Your task to perform on an android device: open a new tab in the chrome app Image 0: 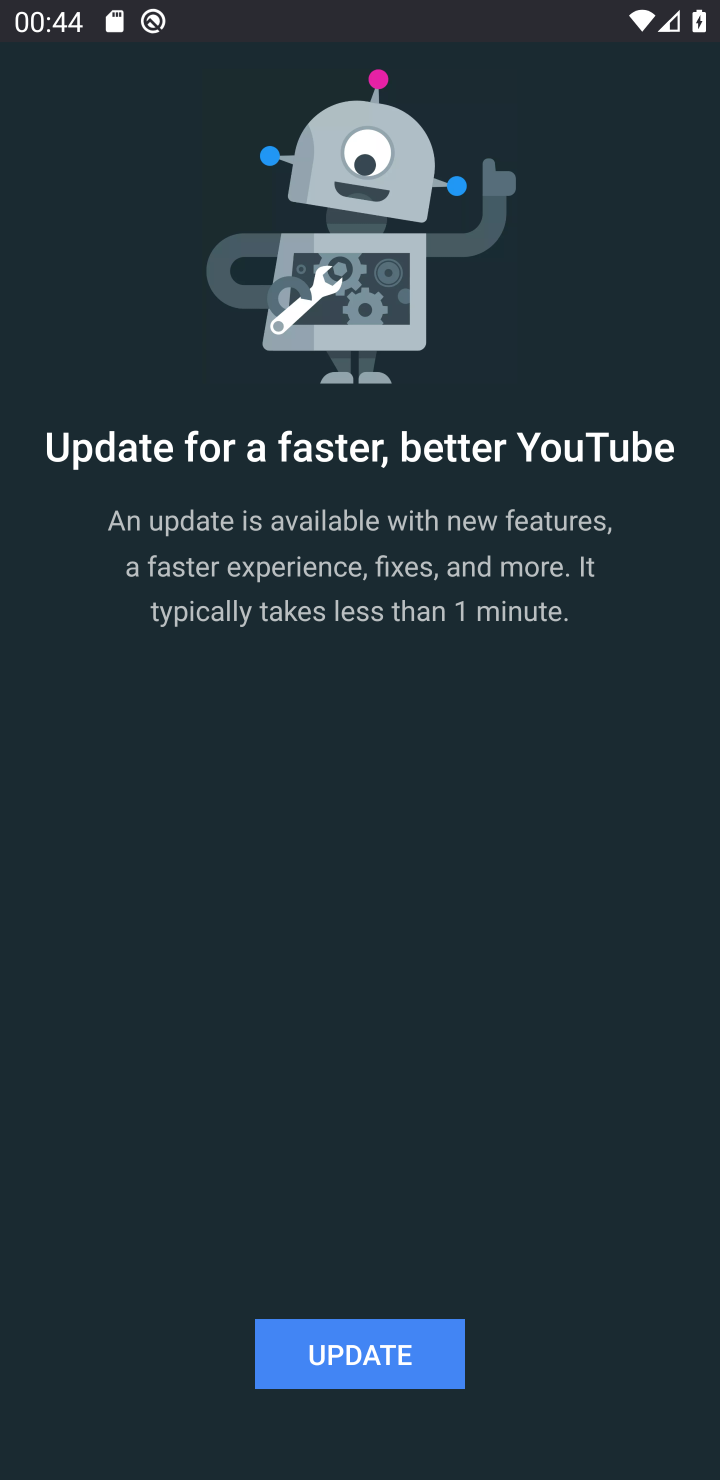
Step 0: press home button
Your task to perform on an android device: open a new tab in the chrome app Image 1: 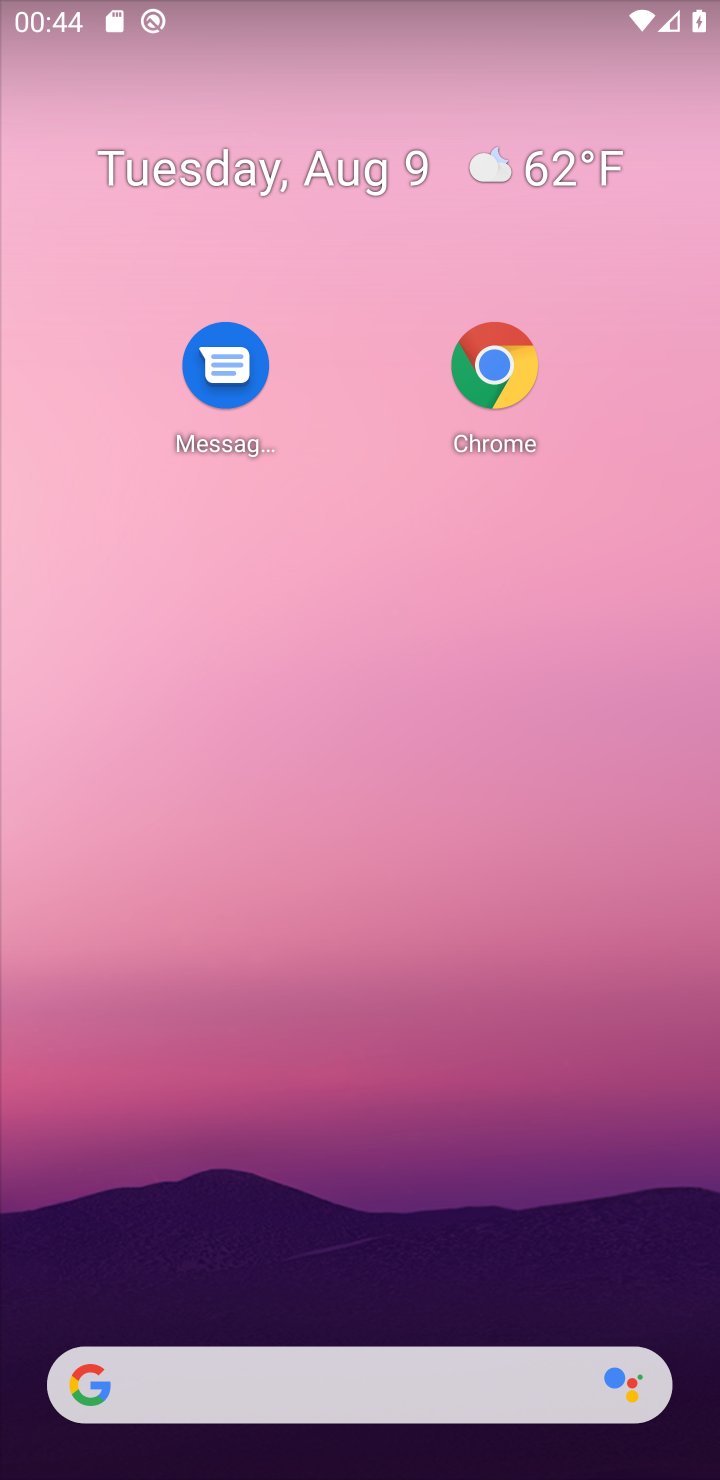
Step 1: drag from (225, 1119) to (290, 386)
Your task to perform on an android device: open a new tab in the chrome app Image 2: 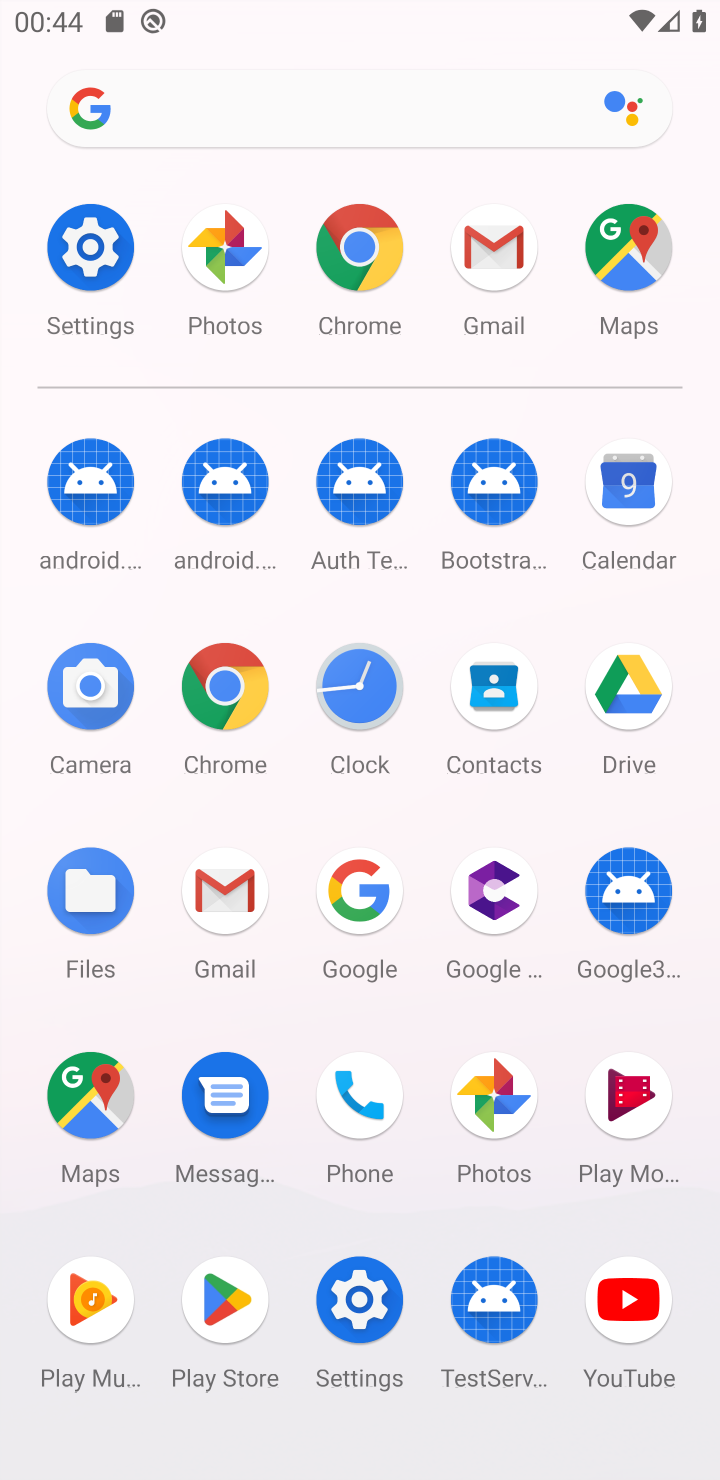
Step 2: click (232, 686)
Your task to perform on an android device: open a new tab in the chrome app Image 3: 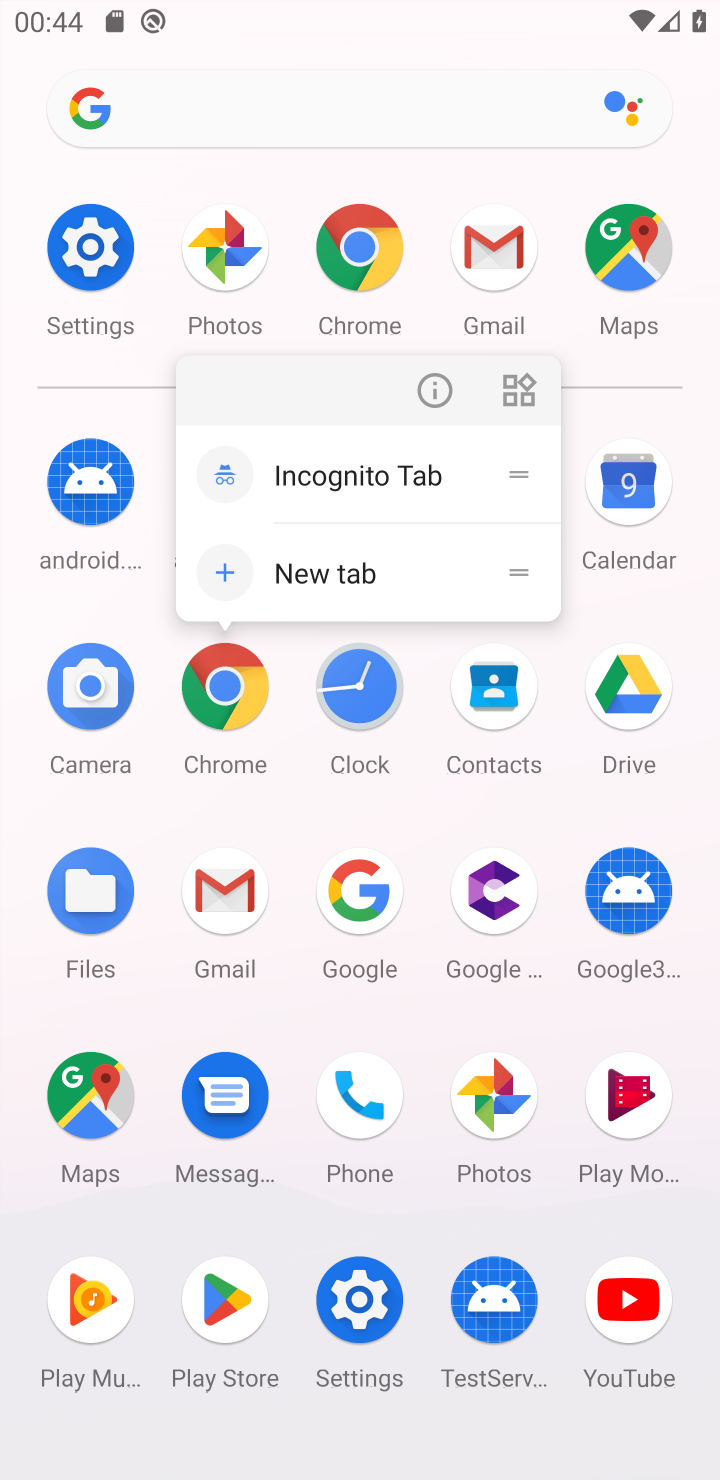
Step 3: click (234, 683)
Your task to perform on an android device: open a new tab in the chrome app Image 4: 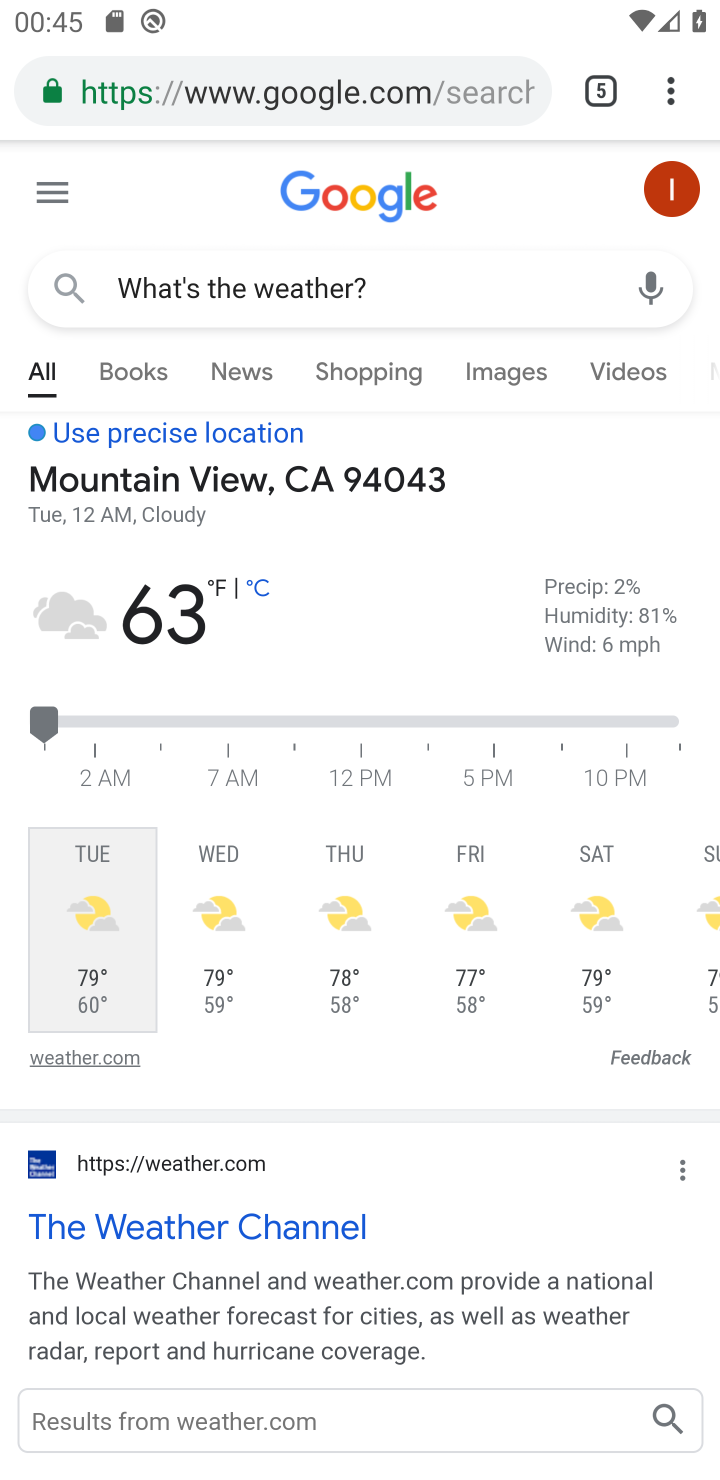
Step 4: click (673, 103)
Your task to perform on an android device: open a new tab in the chrome app Image 5: 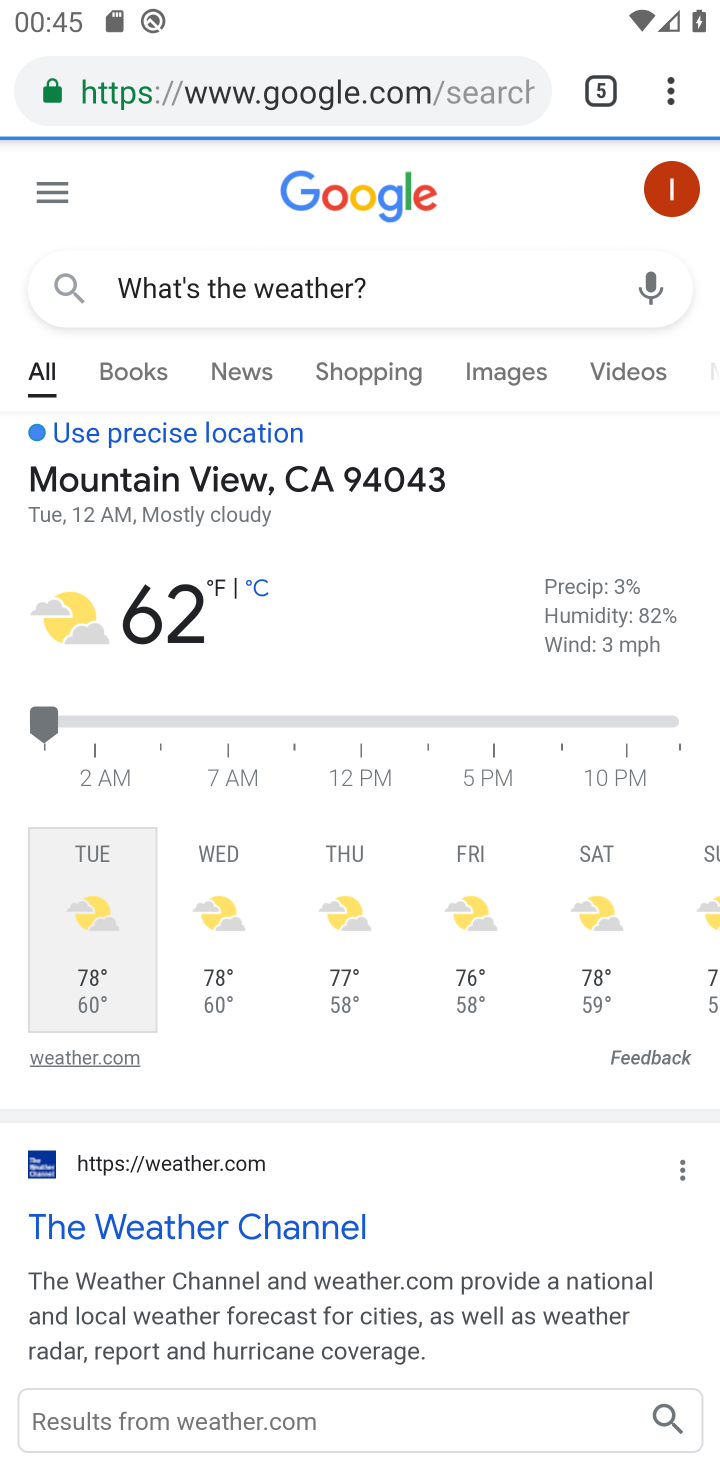
Step 5: click (673, 103)
Your task to perform on an android device: open a new tab in the chrome app Image 6: 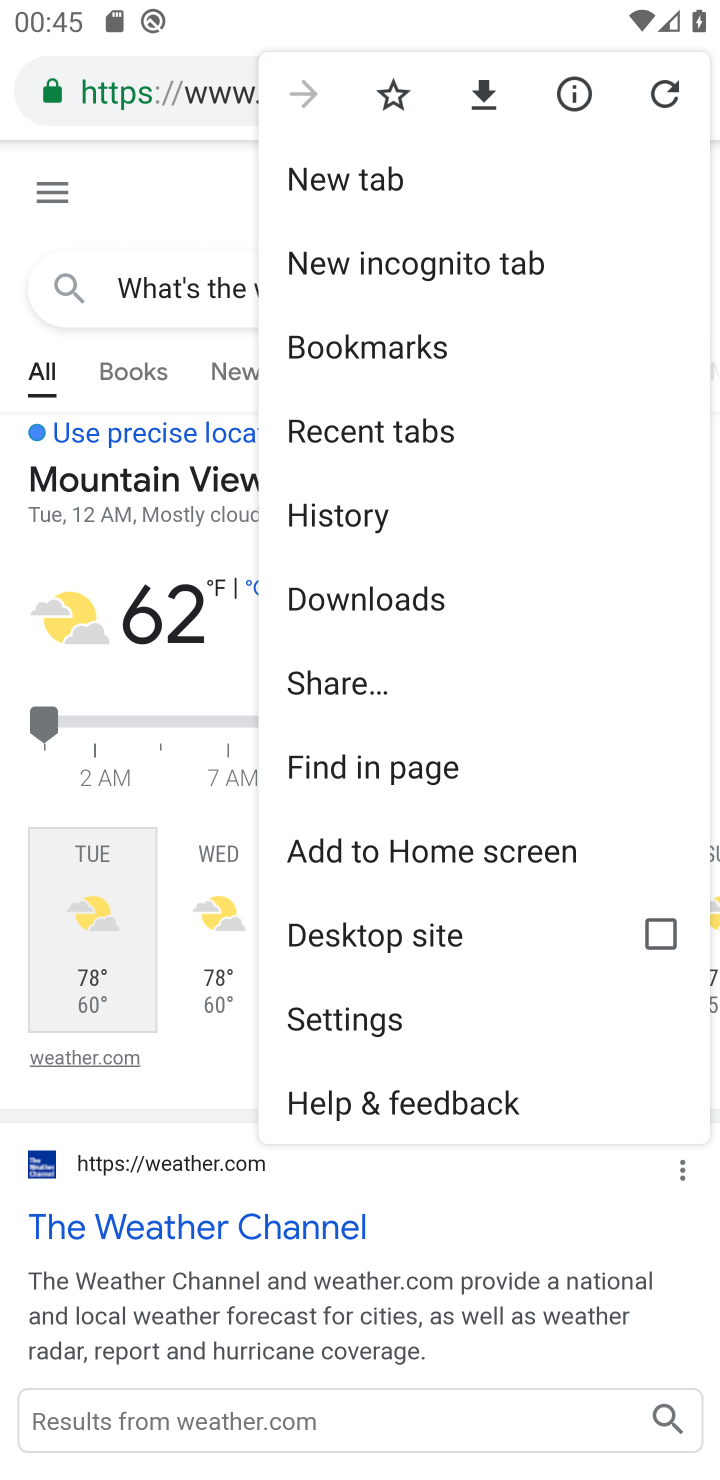
Step 6: click (382, 163)
Your task to perform on an android device: open a new tab in the chrome app Image 7: 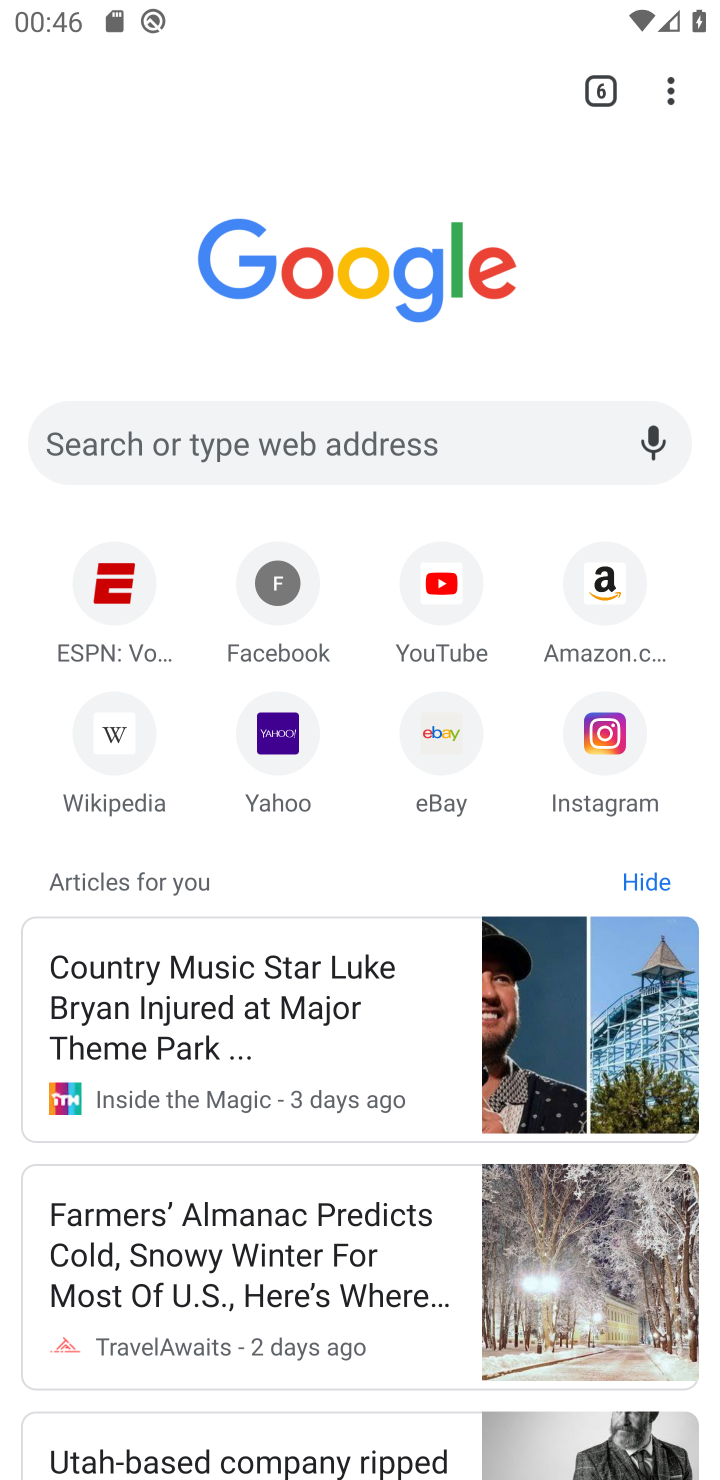
Step 7: task complete